Your task to perform on an android device: turn off wifi Image 0: 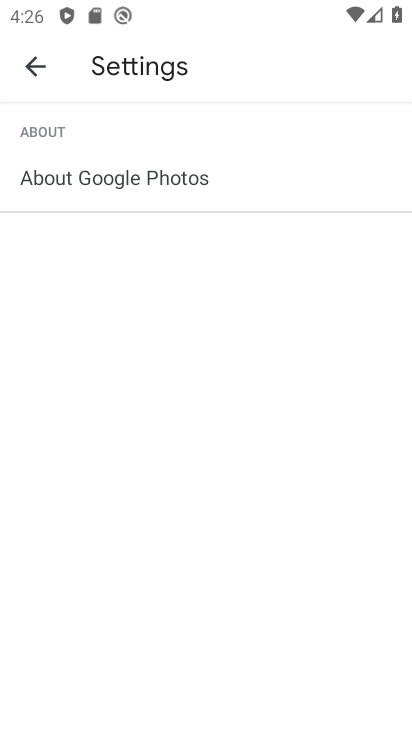
Step 0: press home button
Your task to perform on an android device: turn off wifi Image 1: 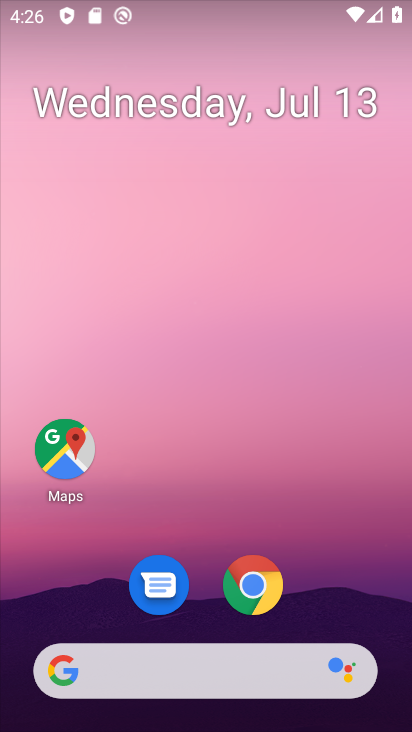
Step 1: drag from (332, 561) to (347, 16)
Your task to perform on an android device: turn off wifi Image 2: 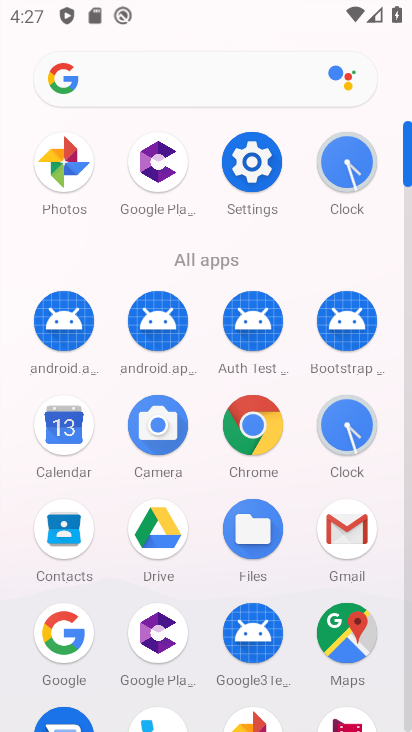
Step 2: click (261, 166)
Your task to perform on an android device: turn off wifi Image 3: 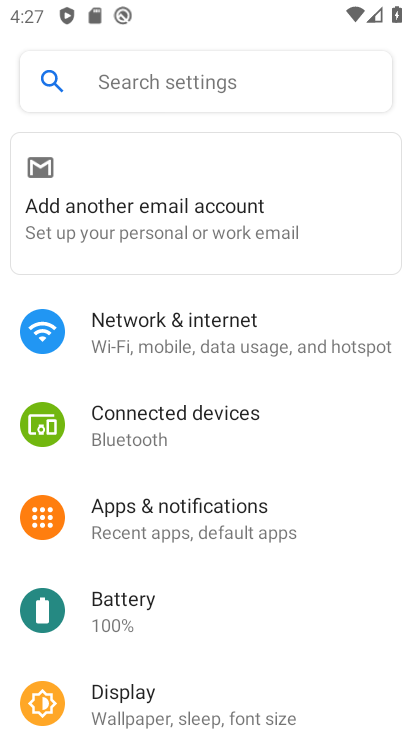
Step 3: click (236, 326)
Your task to perform on an android device: turn off wifi Image 4: 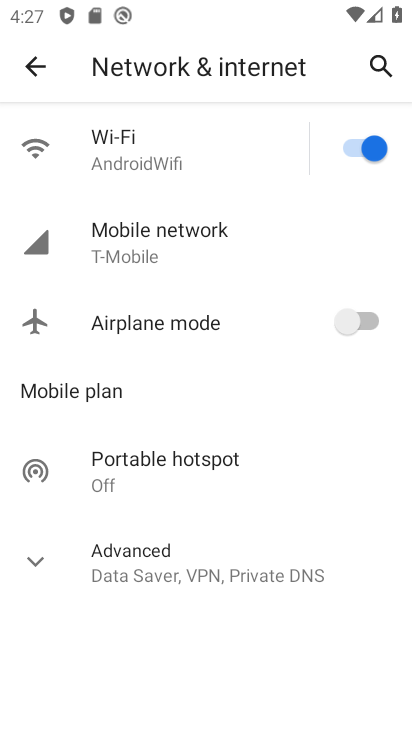
Step 4: click (365, 151)
Your task to perform on an android device: turn off wifi Image 5: 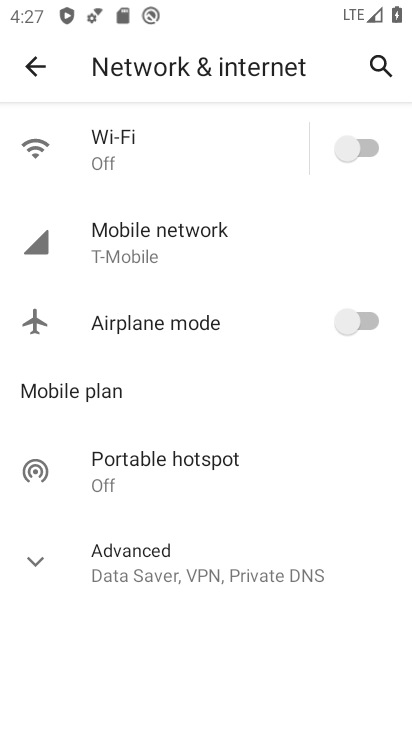
Step 5: task complete